Your task to perform on an android device: change the clock display to analog Image 0: 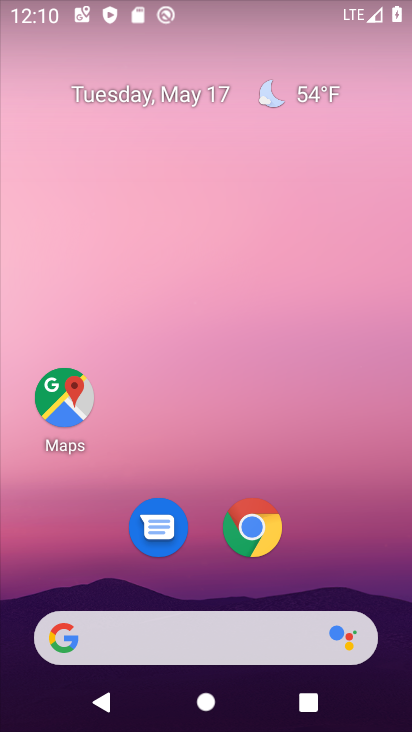
Step 0: drag from (251, 674) to (241, 205)
Your task to perform on an android device: change the clock display to analog Image 1: 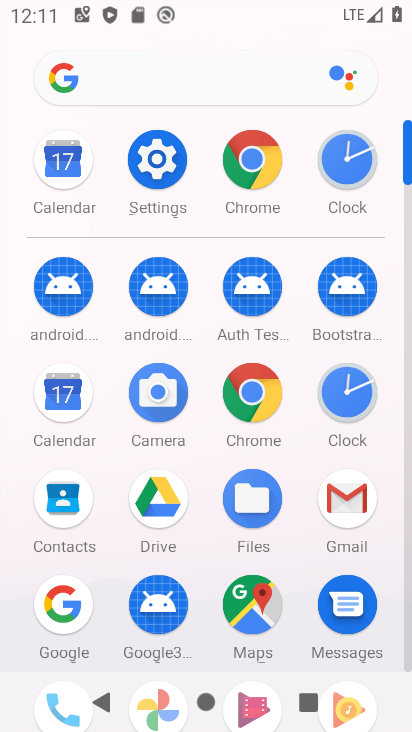
Step 1: click (345, 423)
Your task to perform on an android device: change the clock display to analog Image 2: 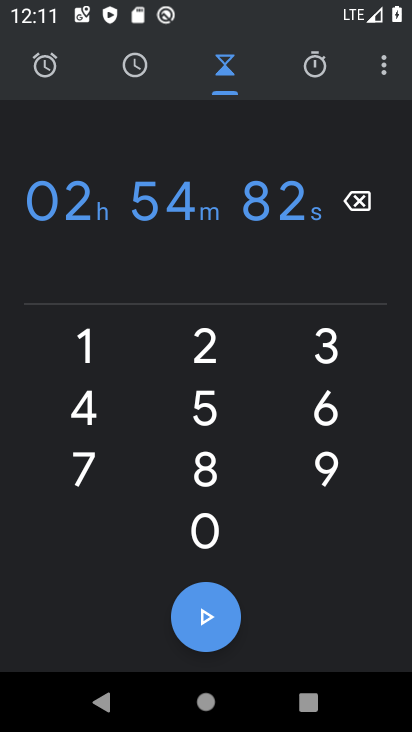
Step 2: click (385, 78)
Your task to perform on an android device: change the clock display to analog Image 3: 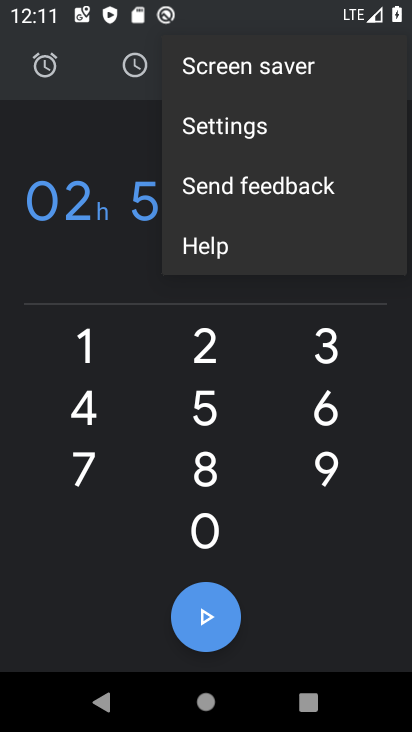
Step 3: click (233, 145)
Your task to perform on an android device: change the clock display to analog Image 4: 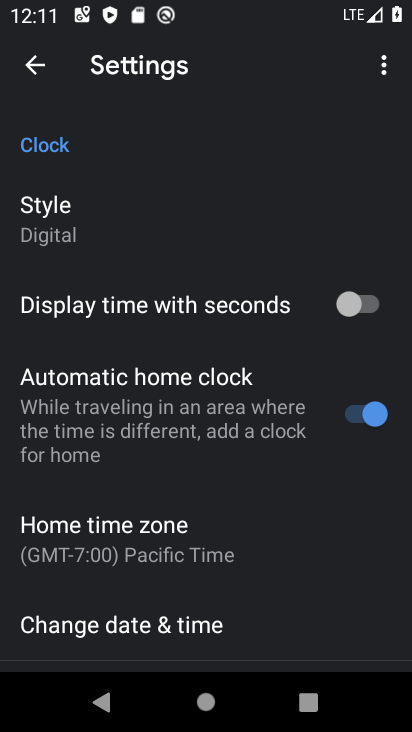
Step 4: click (120, 231)
Your task to perform on an android device: change the clock display to analog Image 5: 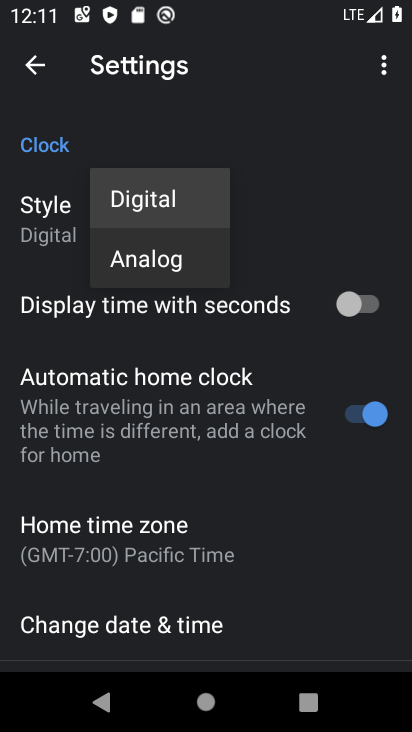
Step 5: click (151, 266)
Your task to perform on an android device: change the clock display to analog Image 6: 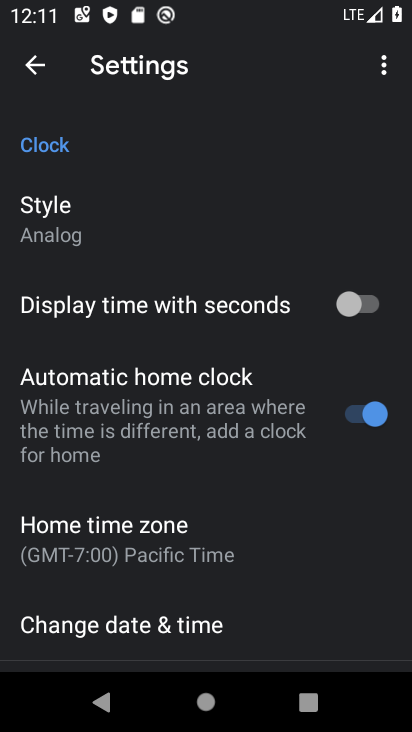
Step 6: task complete